Your task to perform on an android device: set default search engine in the chrome app Image 0: 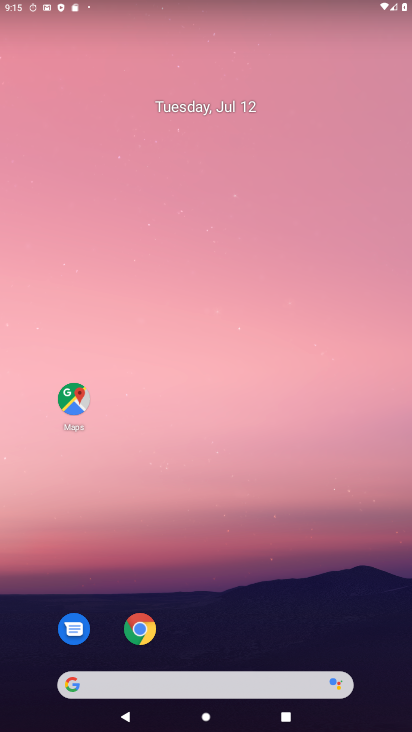
Step 0: drag from (274, 522) to (193, 177)
Your task to perform on an android device: set default search engine in the chrome app Image 1: 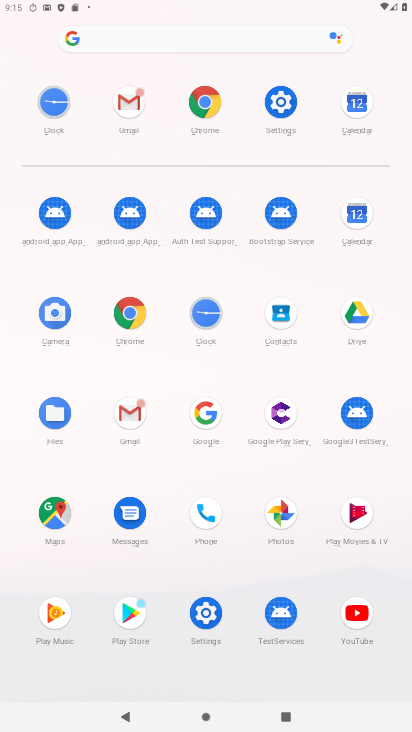
Step 1: click (216, 105)
Your task to perform on an android device: set default search engine in the chrome app Image 2: 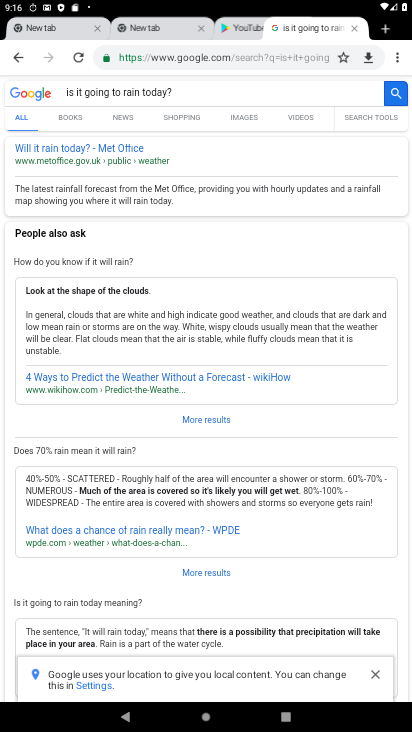
Step 2: drag from (390, 49) to (276, 355)
Your task to perform on an android device: set default search engine in the chrome app Image 3: 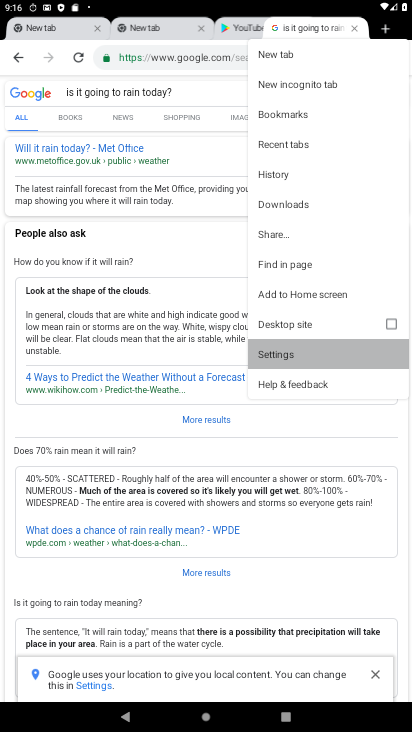
Step 3: click (276, 356)
Your task to perform on an android device: set default search engine in the chrome app Image 4: 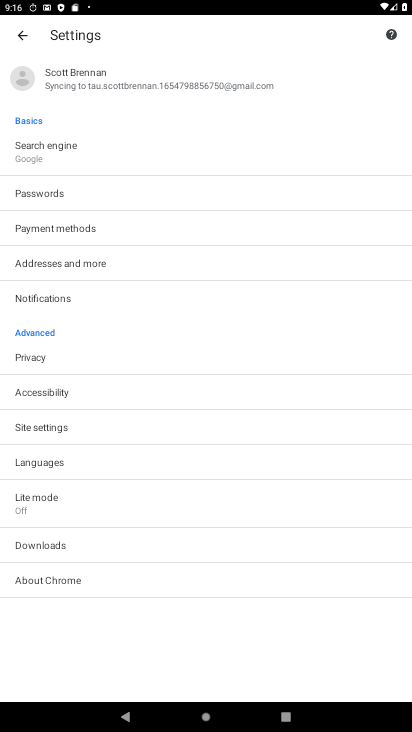
Step 4: click (44, 150)
Your task to perform on an android device: set default search engine in the chrome app Image 5: 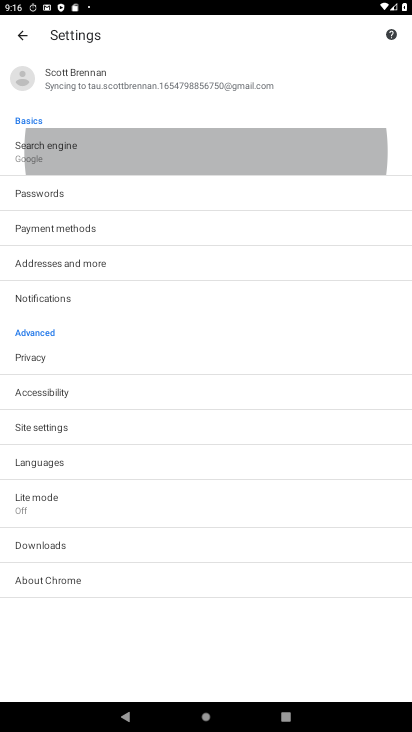
Step 5: click (44, 150)
Your task to perform on an android device: set default search engine in the chrome app Image 6: 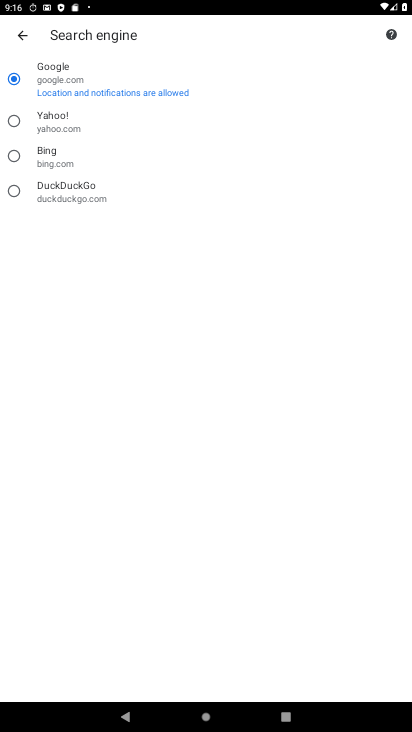
Step 6: click (15, 118)
Your task to perform on an android device: set default search engine in the chrome app Image 7: 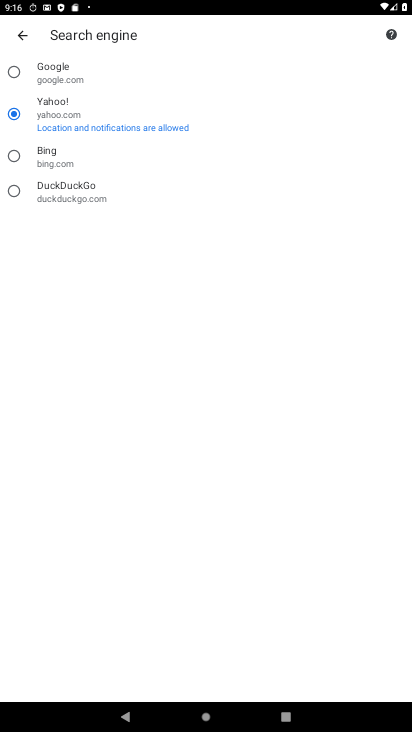
Step 7: task complete